Your task to perform on an android device: When is my next appointment? Image 0: 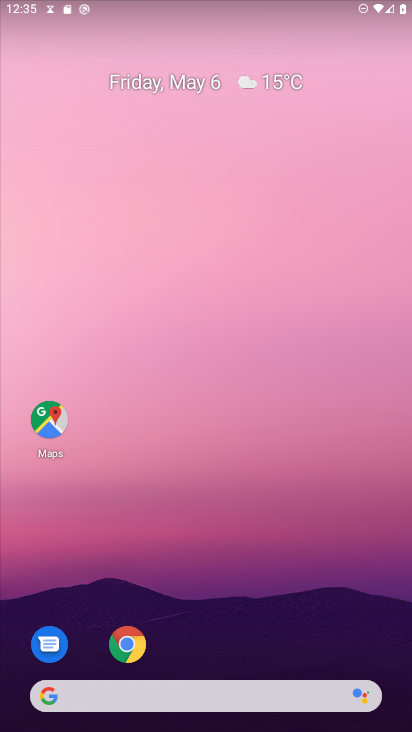
Step 0: drag from (292, 549) to (283, 6)
Your task to perform on an android device: When is my next appointment? Image 1: 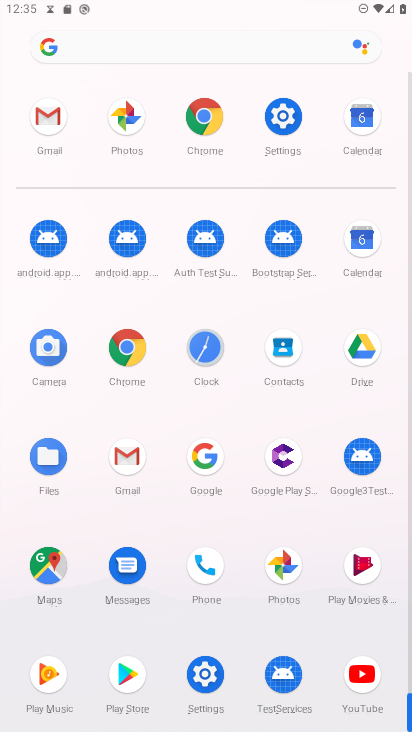
Step 1: drag from (12, 599) to (12, 243)
Your task to perform on an android device: When is my next appointment? Image 2: 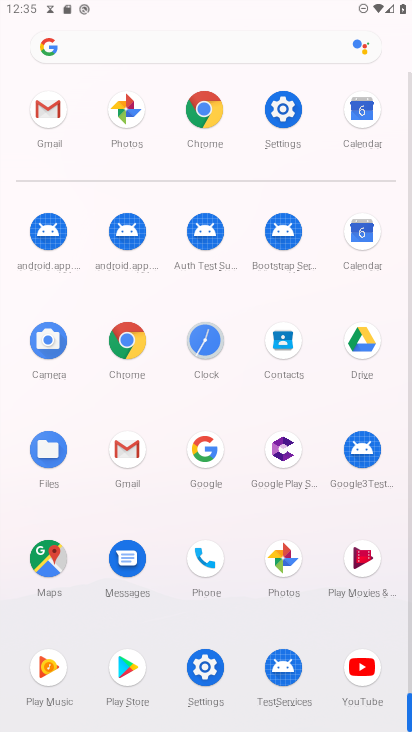
Step 2: drag from (4, 597) to (48, 273)
Your task to perform on an android device: When is my next appointment? Image 3: 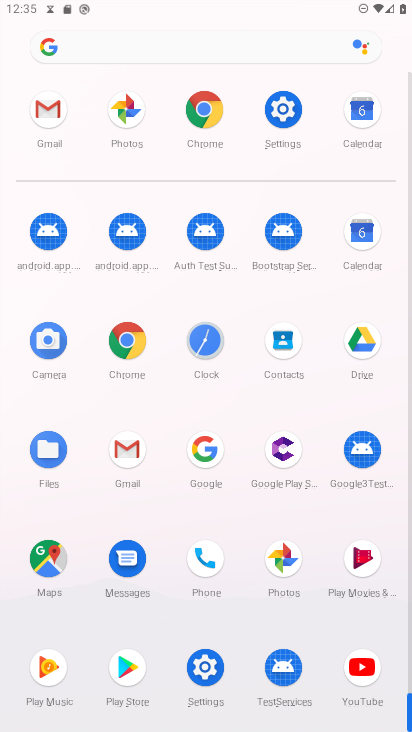
Step 3: click (358, 226)
Your task to perform on an android device: When is my next appointment? Image 4: 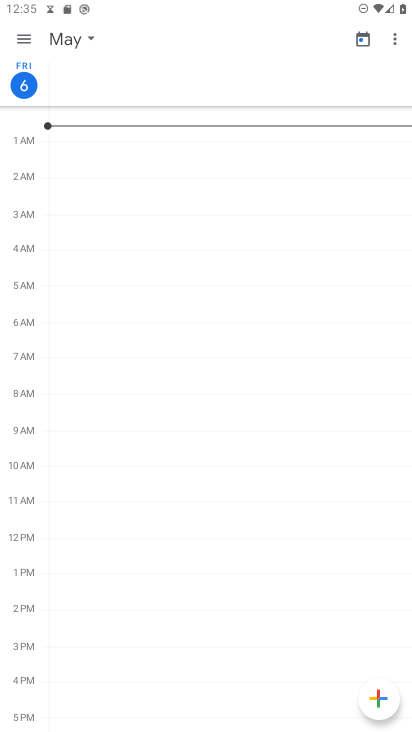
Step 4: click (27, 38)
Your task to perform on an android device: When is my next appointment? Image 5: 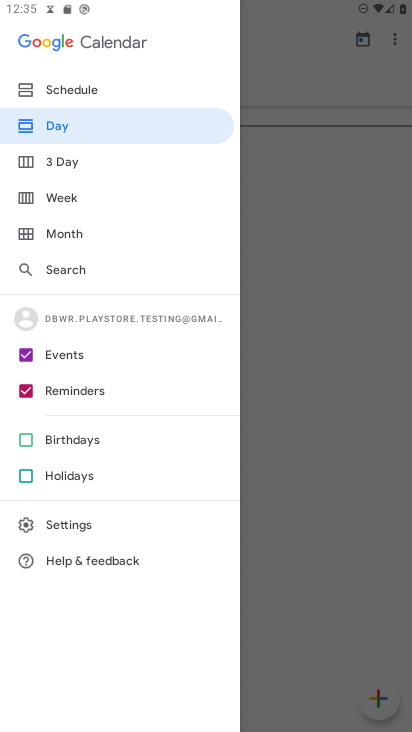
Step 5: click (91, 95)
Your task to perform on an android device: When is my next appointment? Image 6: 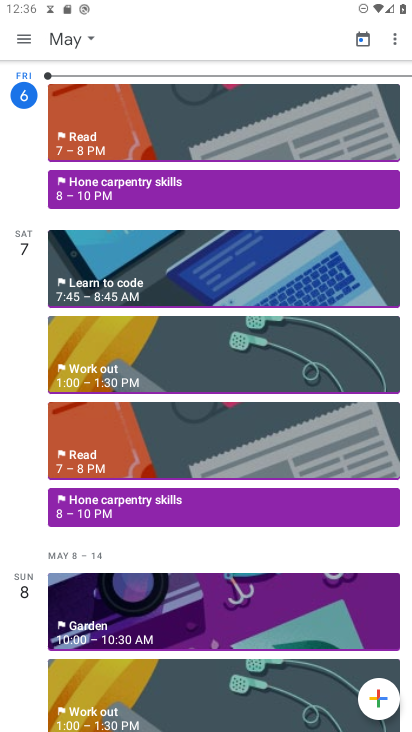
Step 6: task complete